Your task to perform on an android device: Open sound settings Image 0: 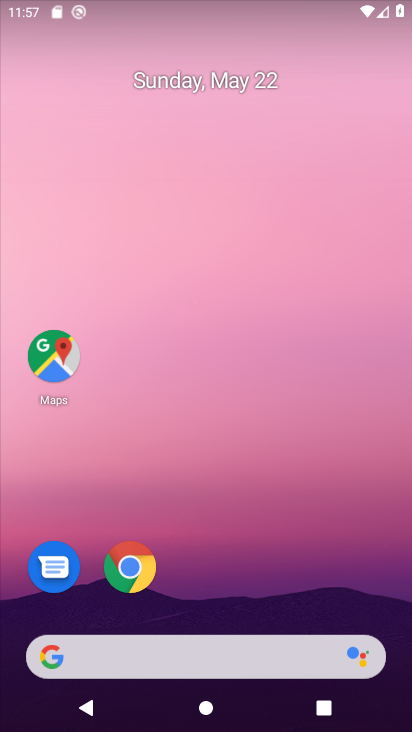
Step 0: click (256, 176)
Your task to perform on an android device: Open sound settings Image 1: 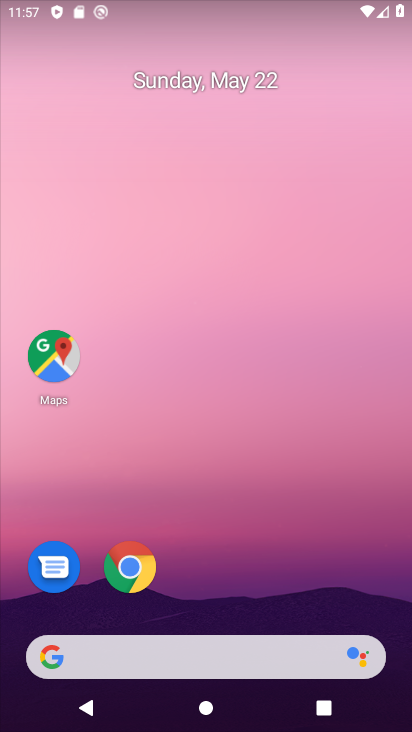
Step 1: drag from (223, 605) to (283, 165)
Your task to perform on an android device: Open sound settings Image 2: 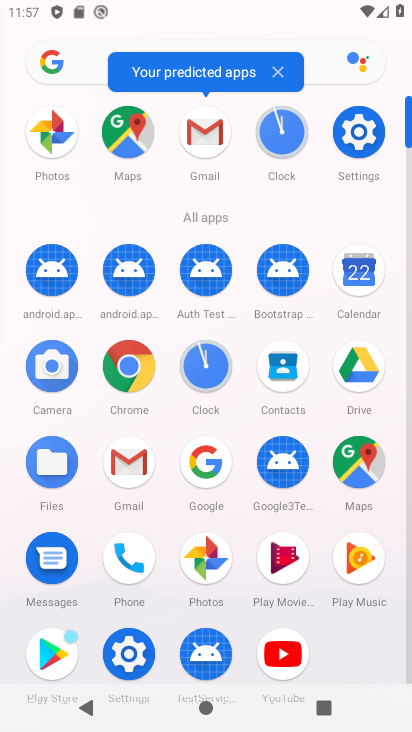
Step 2: click (355, 132)
Your task to perform on an android device: Open sound settings Image 3: 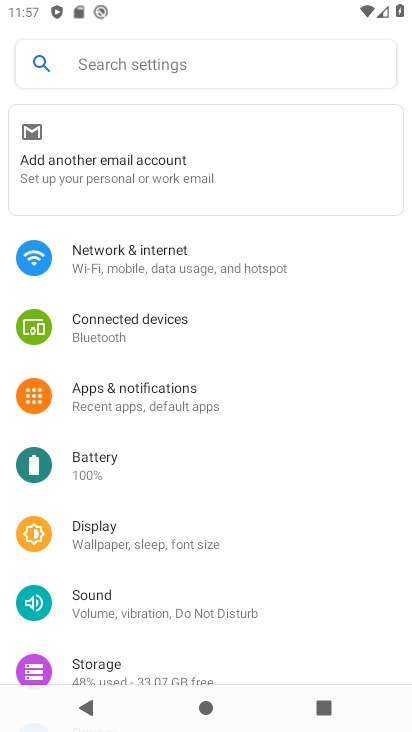
Step 3: click (152, 617)
Your task to perform on an android device: Open sound settings Image 4: 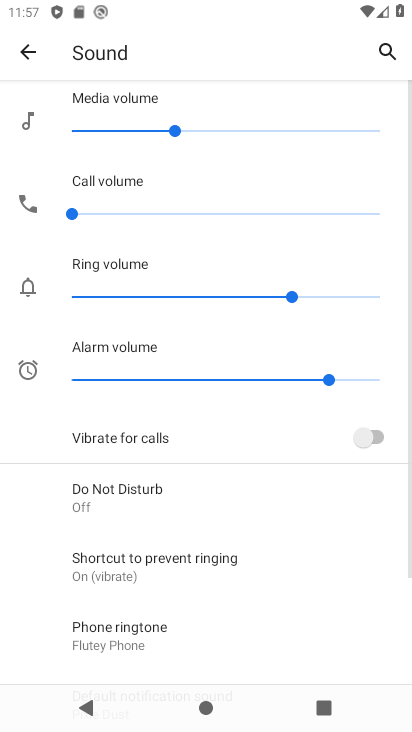
Step 4: task complete